Your task to perform on an android device: What is the recent news? Image 0: 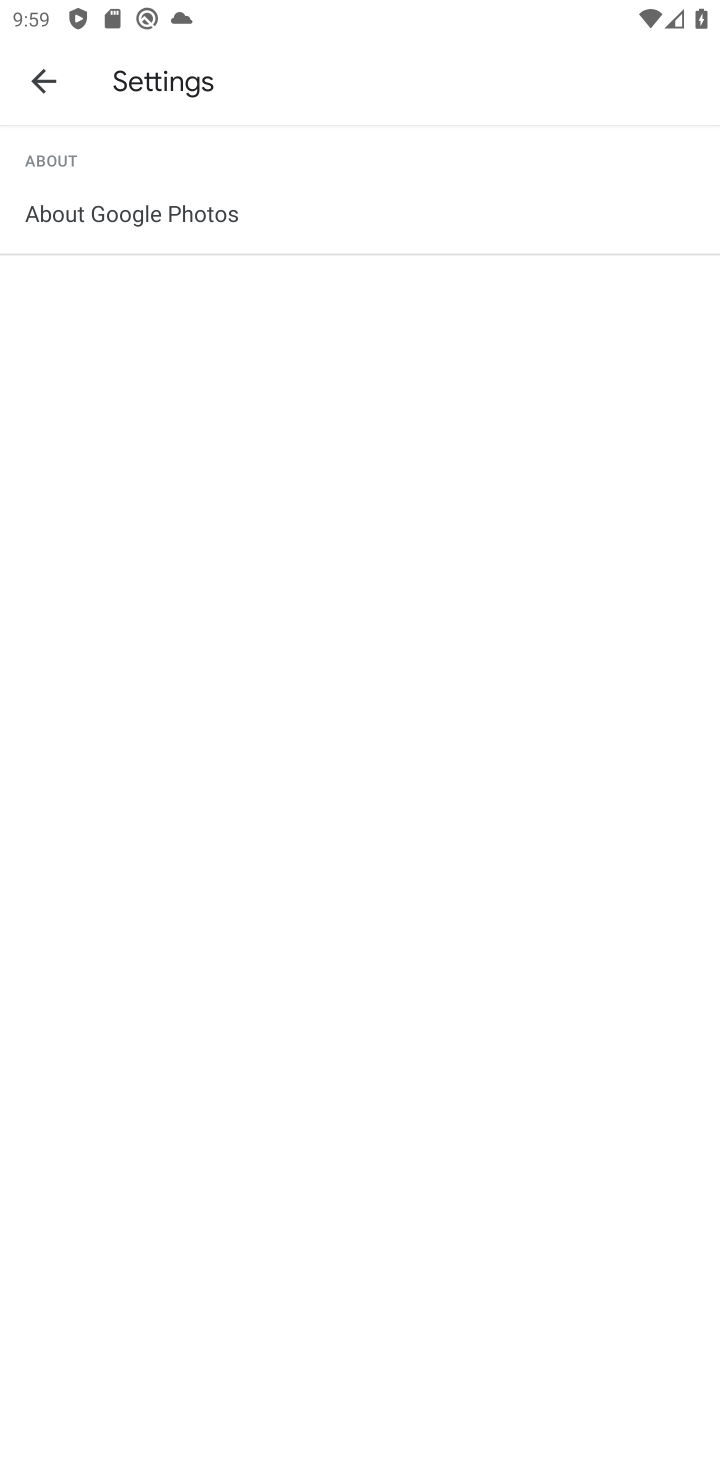
Step 0: press home button
Your task to perform on an android device: What is the recent news? Image 1: 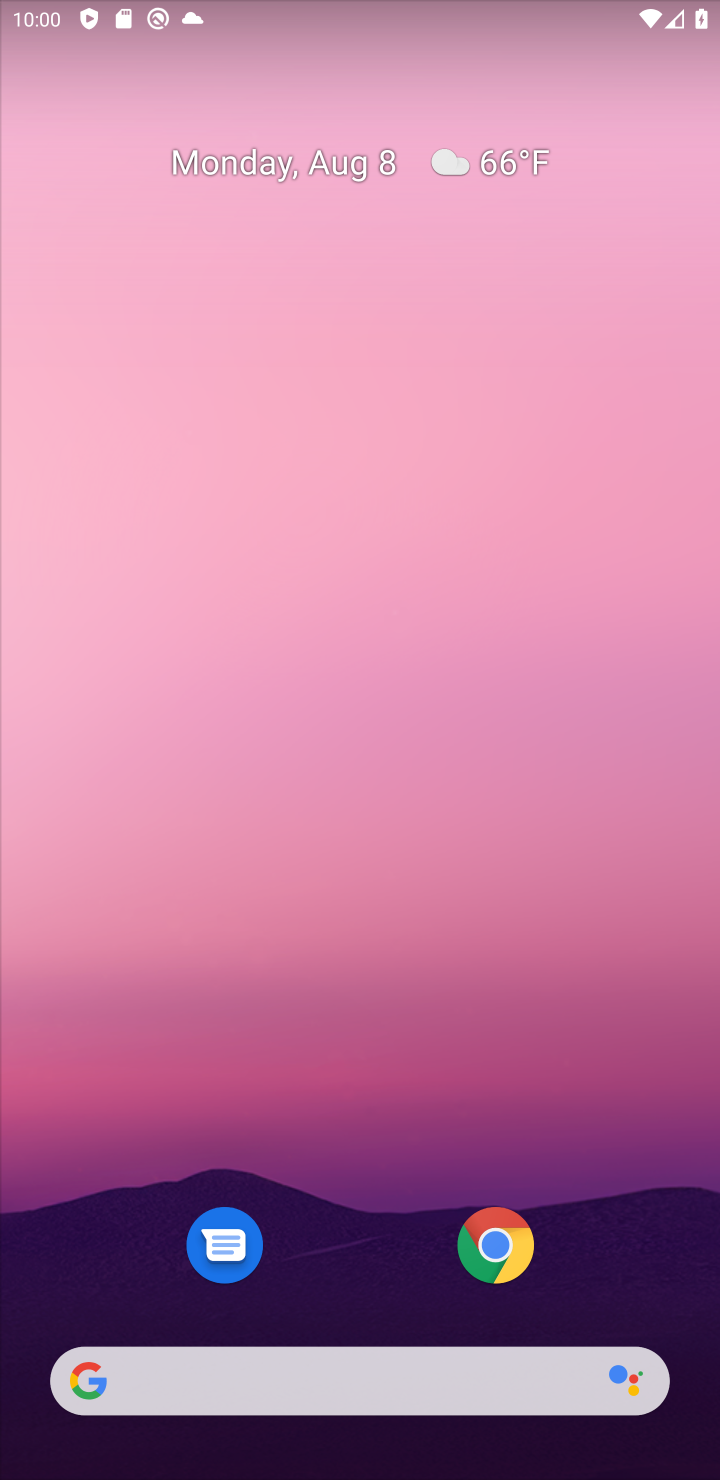
Step 1: task complete